Your task to perform on an android device: Open calendar and show me the second week of next month Image 0: 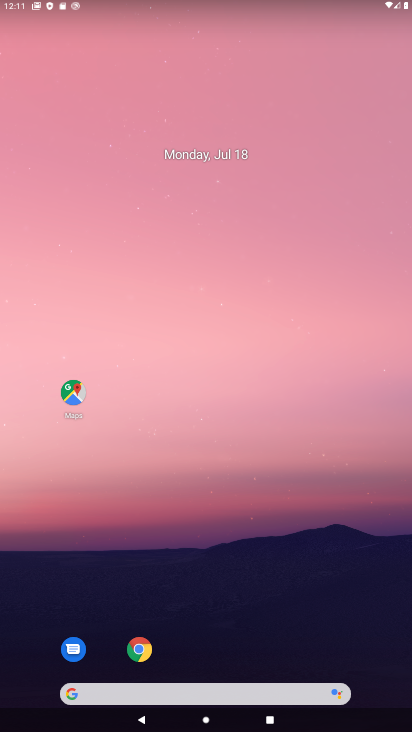
Step 0: drag from (347, 626) to (313, 168)
Your task to perform on an android device: Open calendar and show me the second week of next month Image 1: 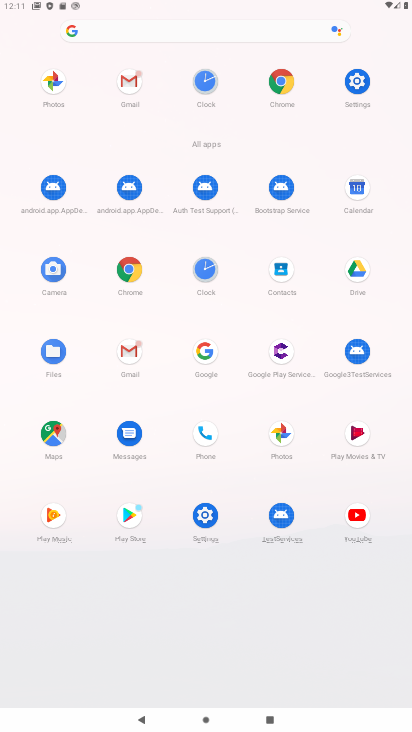
Step 1: click (355, 187)
Your task to perform on an android device: Open calendar and show me the second week of next month Image 2: 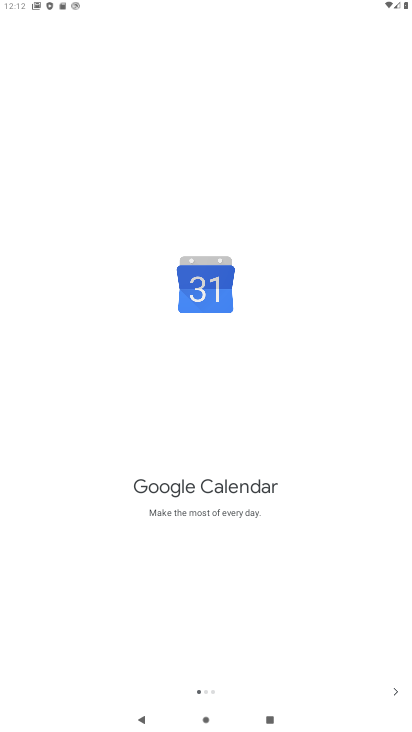
Step 2: click (393, 690)
Your task to perform on an android device: Open calendar and show me the second week of next month Image 3: 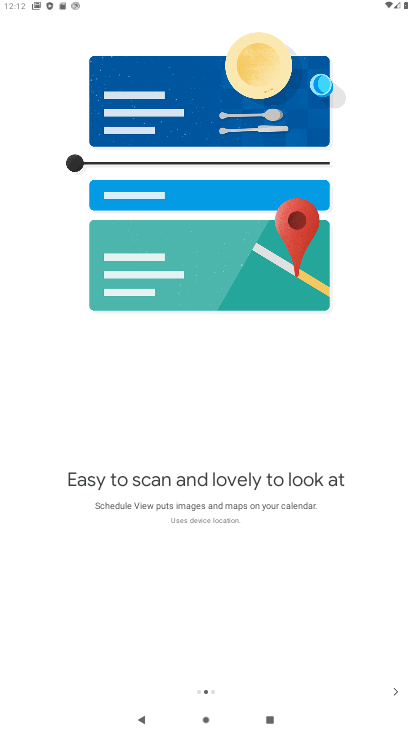
Step 3: click (391, 688)
Your task to perform on an android device: Open calendar and show me the second week of next month Image 4: 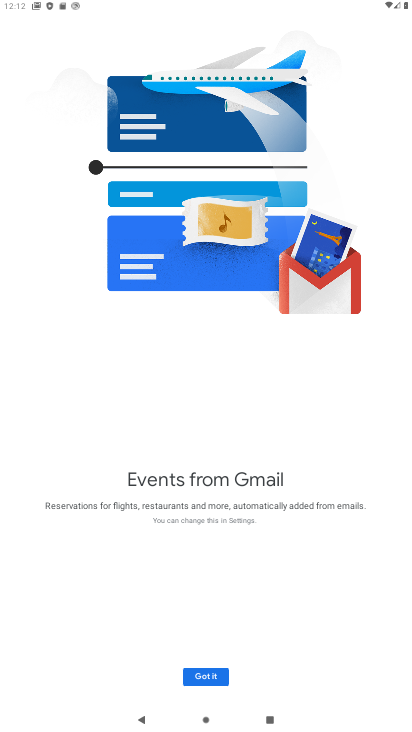
Step 4: click (206, 676)
Your task to perform on an android device: Open calendar and show me the second week of next month Image 5: 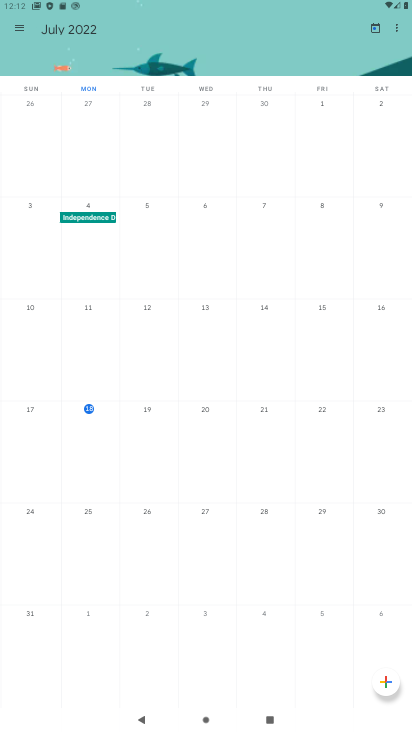
Step 5: click (31, 35)
Your task to perform on an android device: Open calendar and show me the second week of next month Image 6: 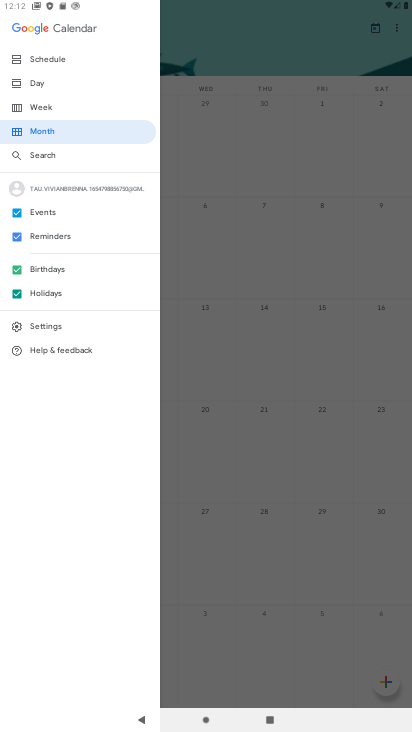
Step 6: click (41, 103)
Your task to perform on an android device: Open calendar and show me the second week of next month Image 7: 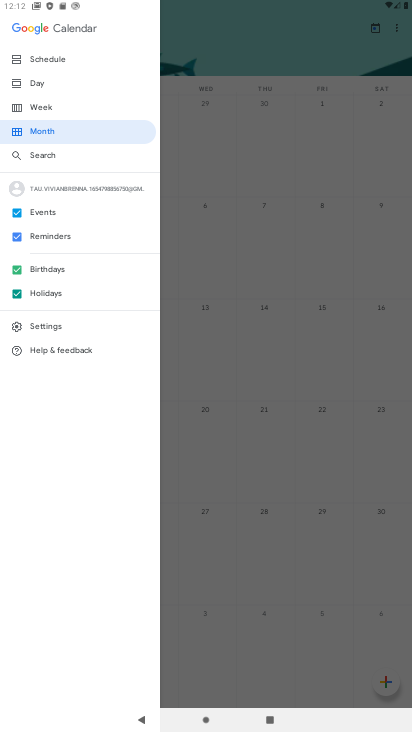
Step 7: click (28, 100)
Your task to perform on an android device: Open calendar and show me the second week of next month Image 8: 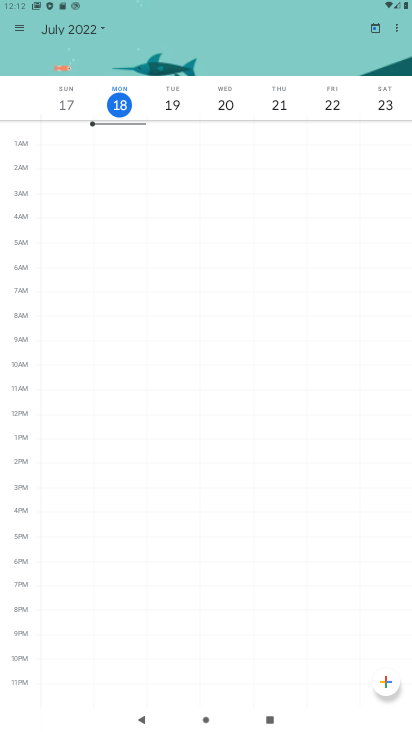
Step 8: click (100, 24)
Your task to perform on an android device: Open calendar and show me the second week of next month Image 9: 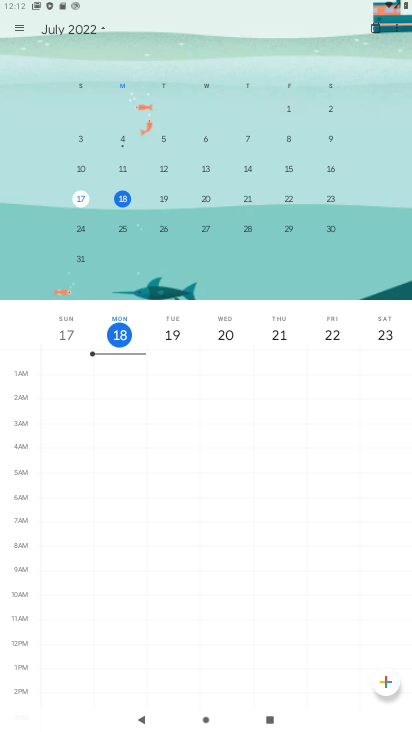
Step 9: drag from (334, 205) to (31, 182)
Your task to perform on an android device: Open calendar and show me the second week of next month Image 10: 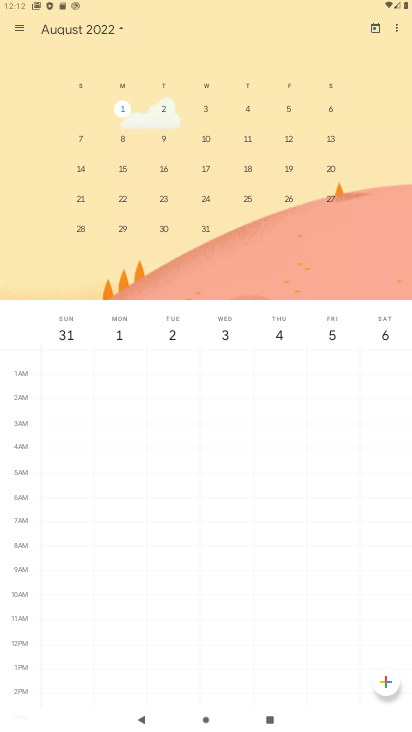
Step 10: click (82, 166)
Your task to perform on an android device: Open calendar and show me the second week of next month Image 11: 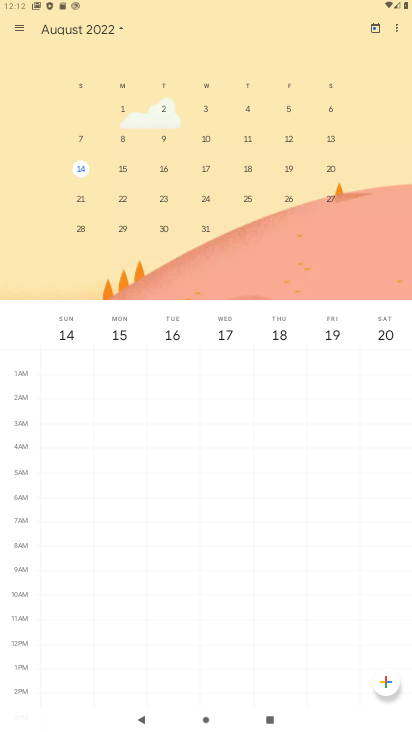
Step 11: task complete